Your task to perform on an android device: refresh tabs in the chrome app Image 0: 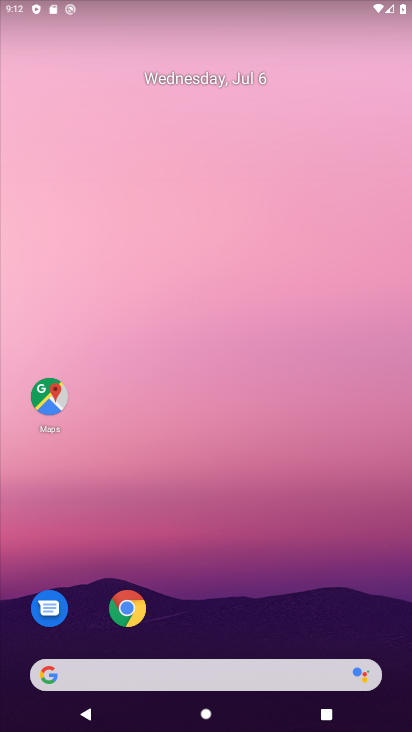
Step 0: drag from (185, 675) to (161, 194)
Your task to perform on an android device: refresh tabs in the chrome app Image 1: 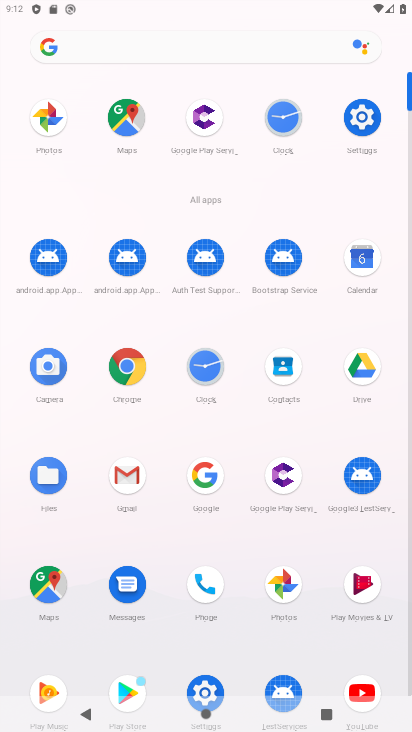
Step 1: click (114, 384)
Your task to perform on an android device: refresh tabs in the chrome app Image 2: 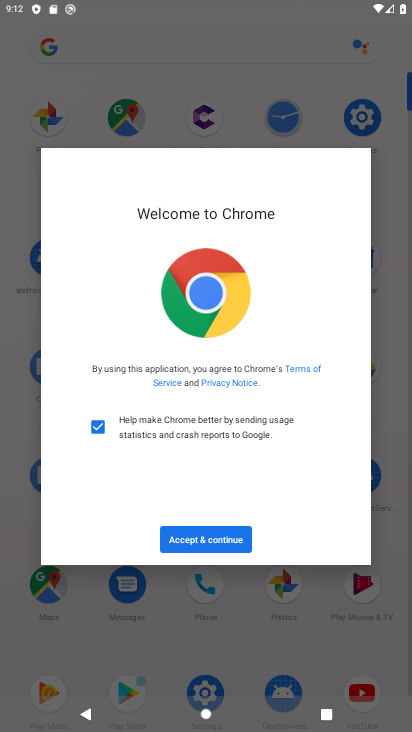
Step 2: click (198, 535)
Your task to perform on an android device: refresh tabs in the chrome app Image 3: 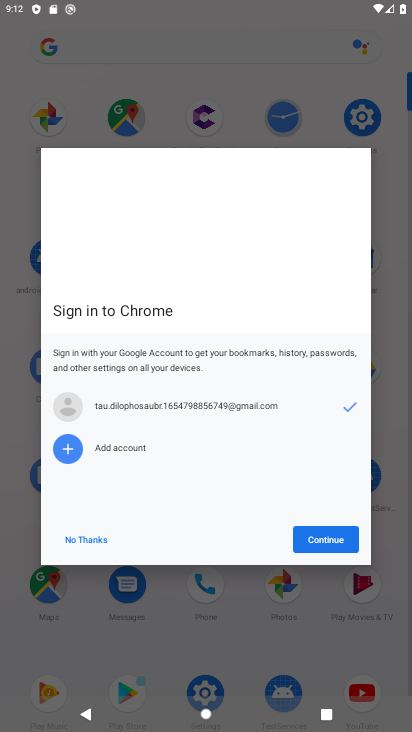
Step 3: click (329, 547)
Your task to perform on an android device: refresh tabs in the chrome app Image 4: 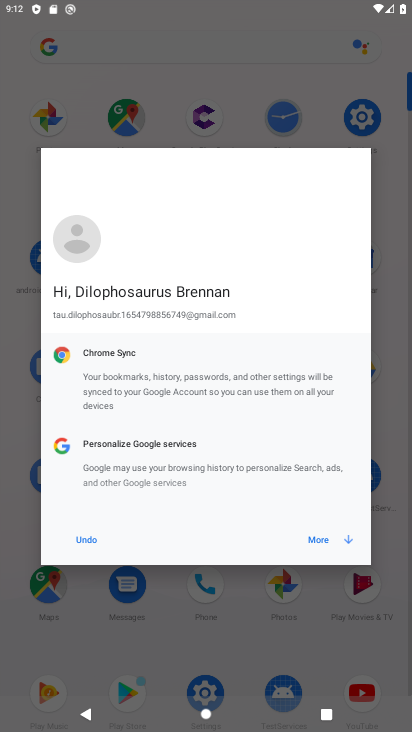
Step 4: click (329, 547)
Your task to perform on an android device: refresh tabs in the chrome app Image 5: 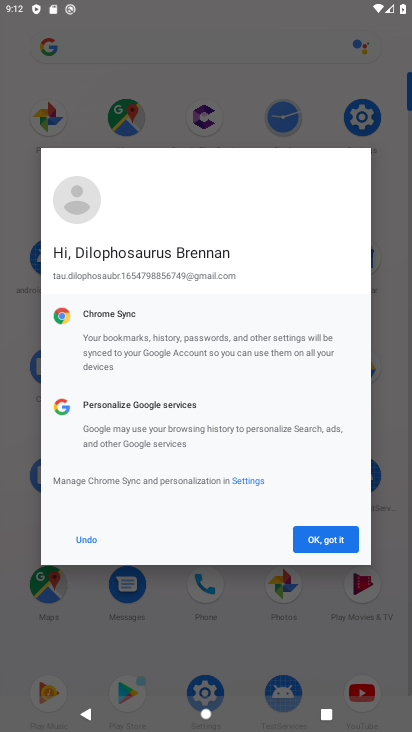
Step 5: click (321, 535)
Your task to perform on an android device: refresh tabs in the chrome app Image 6: 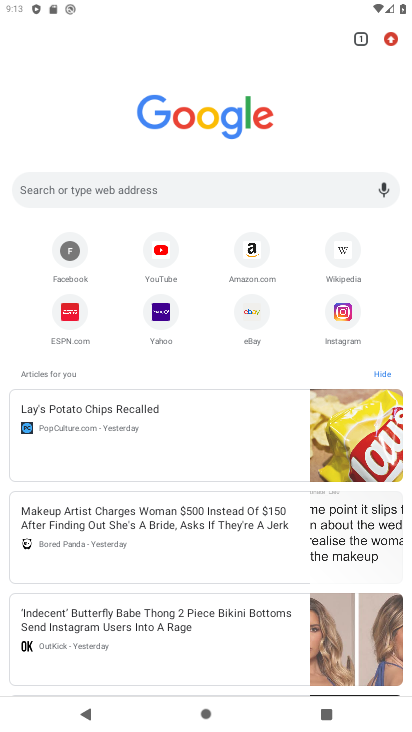
Step 6: click (388, 40)
Your task to perform on an android device: refresh tabs in the chrome app Image 7: 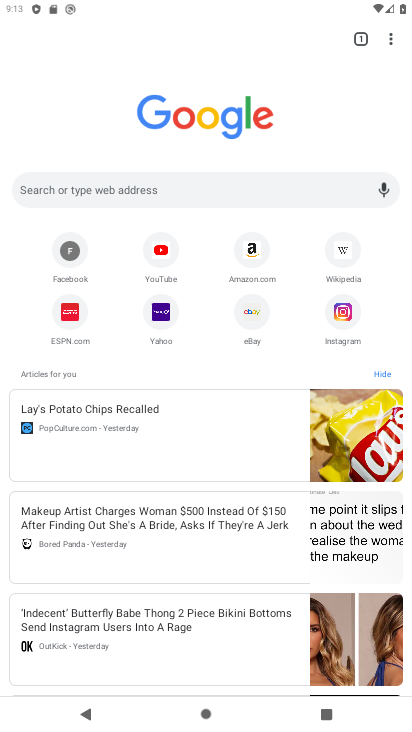
Step 7: task complete